Your task to perform on an android device: Open Maps and search for coffee Image 0: 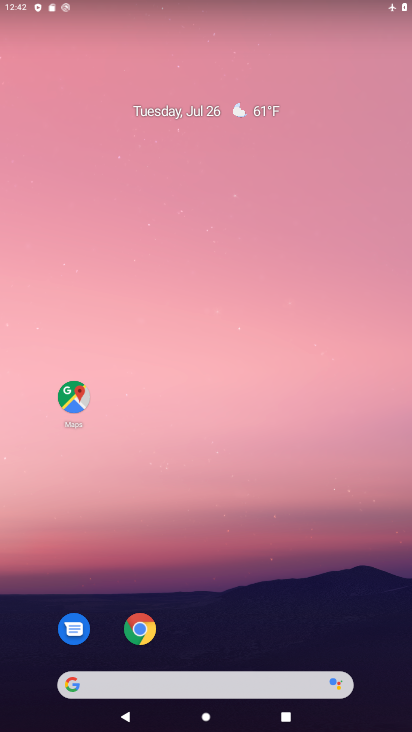
Step 0: drag from (217, 642) to (174, 33)
Your task to perform on an android device: Open Maps and search for coffee Image 1: 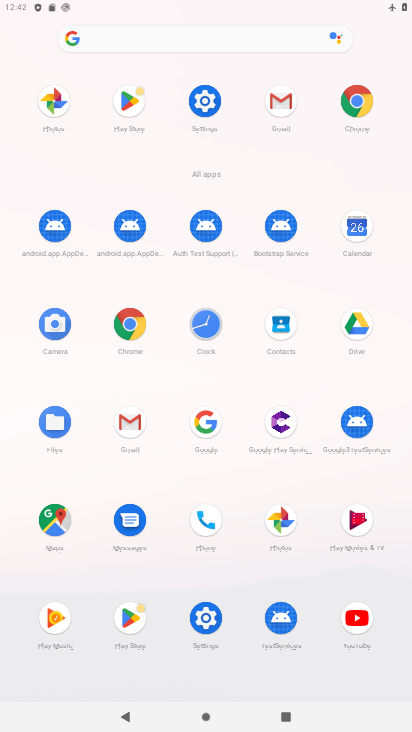
Step 1: click (42, 522)
Your task to perform on an android device: Open Maps and search for coffee Image 2: 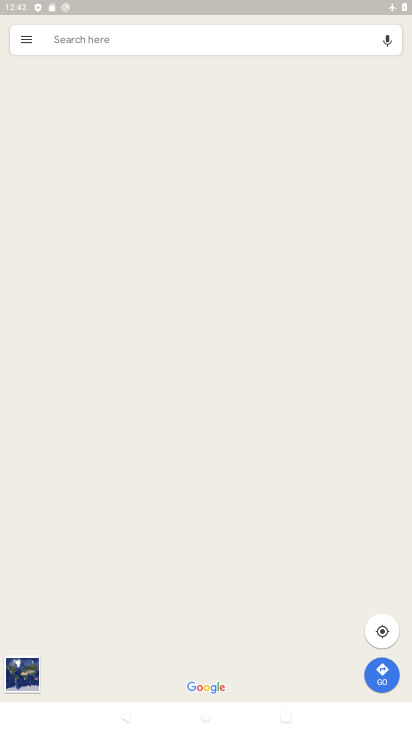
Step 2: click (244, 30)
Your task to perform on an android device: Open Maps and search for coffee Image 3: 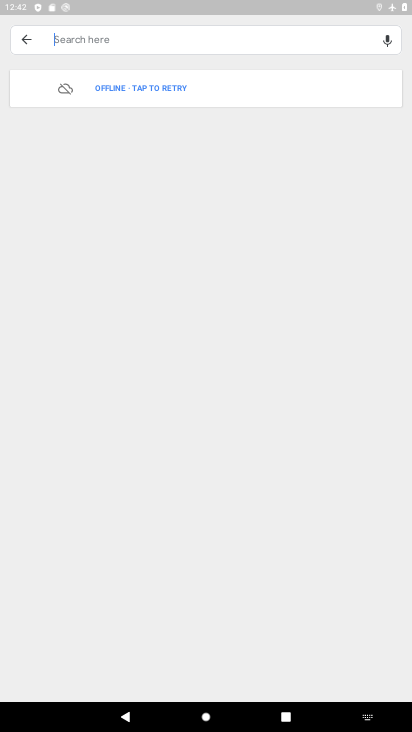
Step 3: type "coffee"
Your task to perform on an android device: Open Maps and search for coffee Image 4: 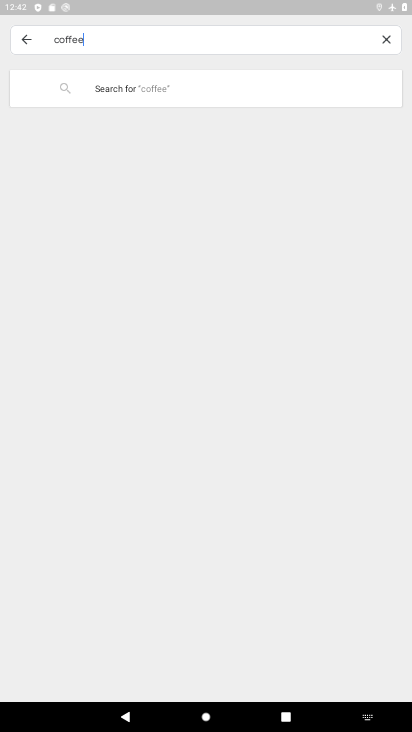
Step 4: type ""
Your task to perform on an android device: Open Maps and search for coffee Image 5: 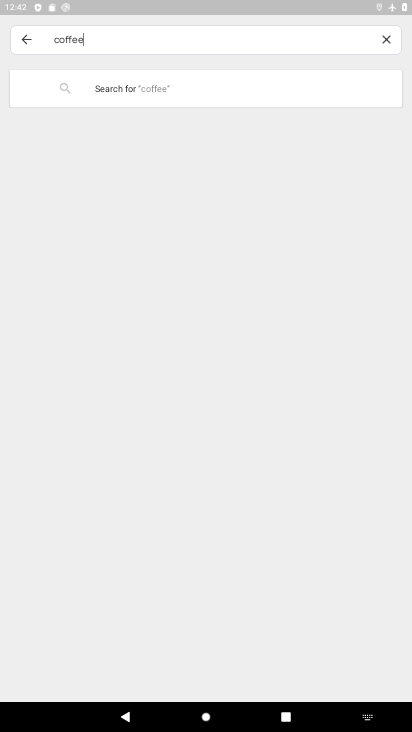
Step 5: task complete